Your task to perform on an android device: see sites visited before in the chrome app Image 0: 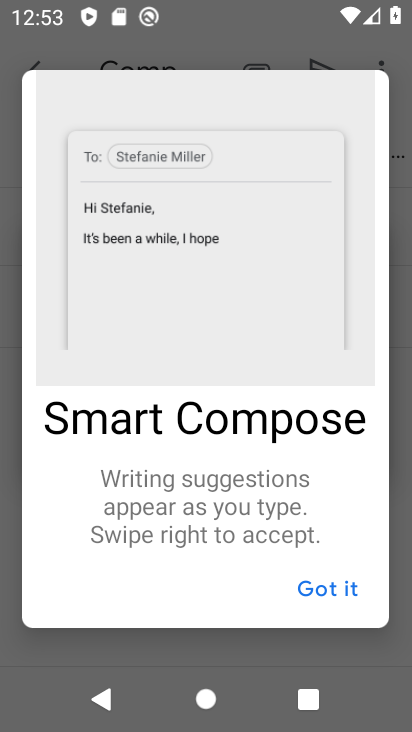
Step 0: press back button
Your task to perform on an android device: see sites visited before in the chrome app Image 1: 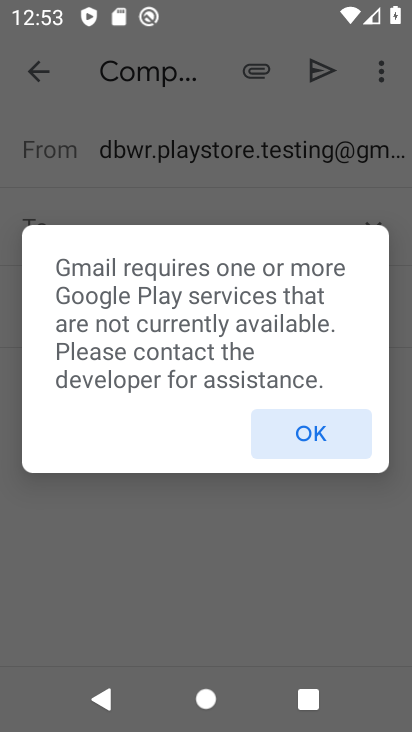
Step 1: press home button
Your task to perform on an android device: see sites visited before in the chrome app Image 2: 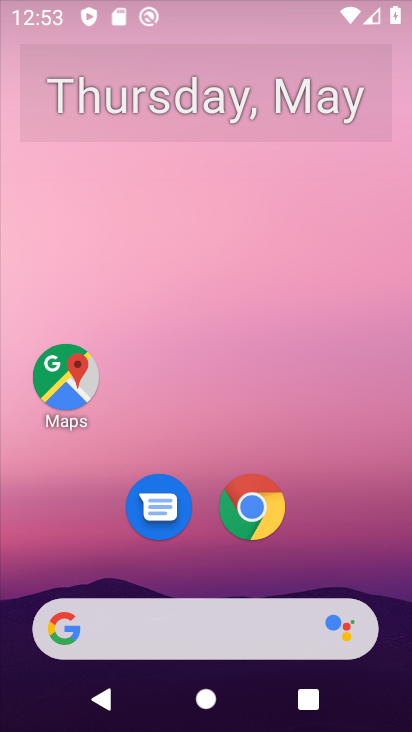
Step 2: drag from (203, 556) to (298, 57)
Your task to perform on an android device: see sites visited before in the chrome app Image 3: 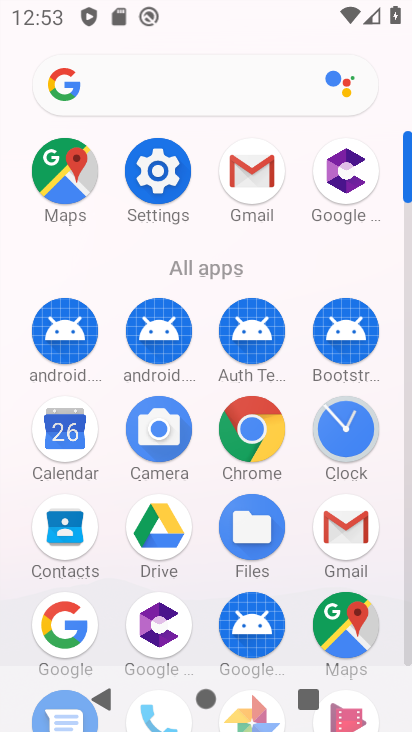
Step 3: click (263, 427)
Your task to perform on an android device: see sites visited before in the chrome app Image 4: 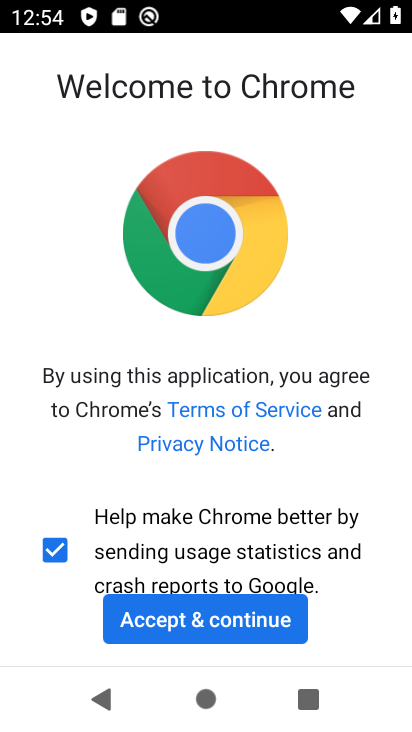
Step 4: click (256, 637)
Your task to perform on an android device: see sites visited before in the chrome app Image 5: 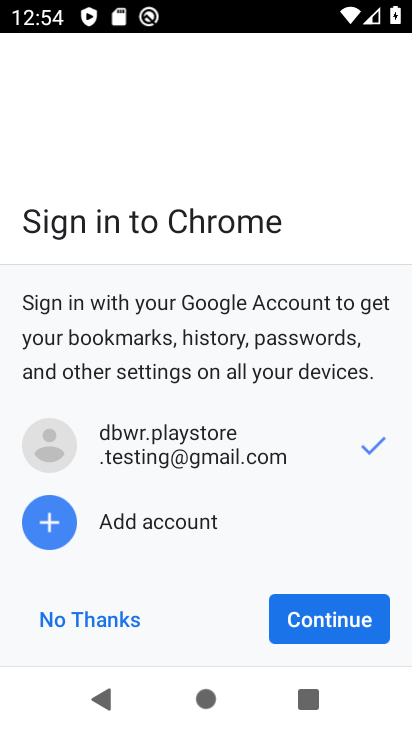
Step 5: click (136, 628)
Your task to perform on an android device: see sites visited before in the chrome app Image 6: 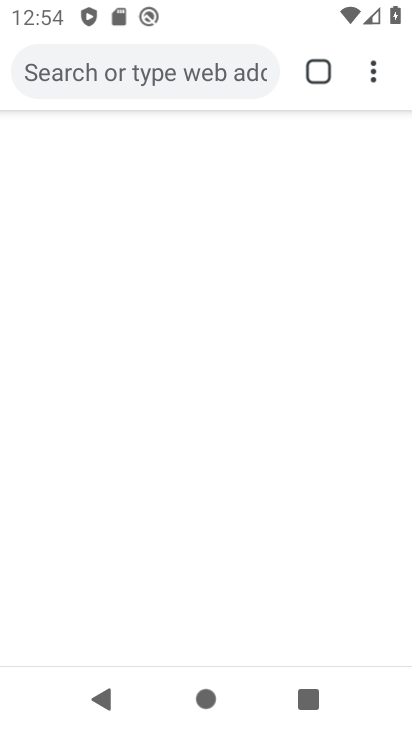
Step 6: task complete